Your task to perform on an android device: open app "DoorDash - Food Delivery" (install if not already installed) and go to login screen Image 0: 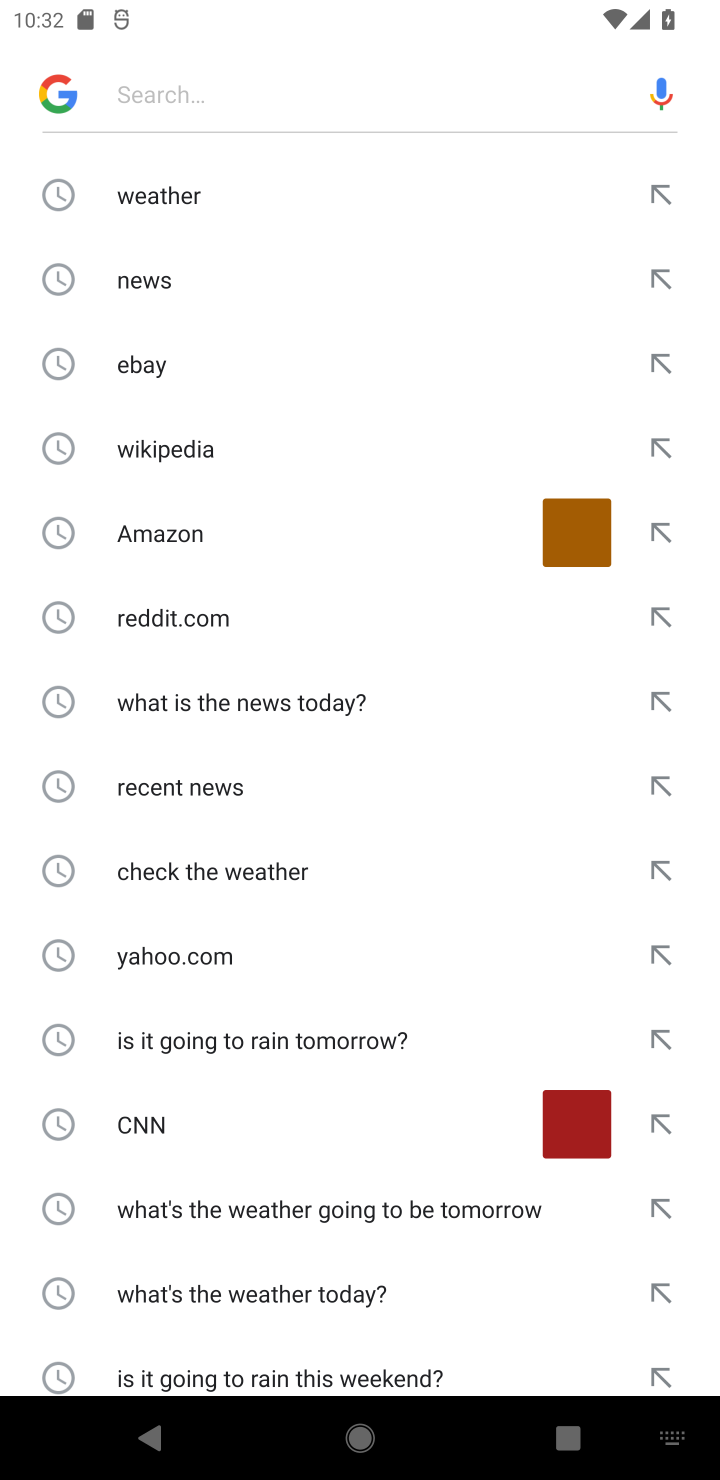
Step 0: press home button
Your task to perform on an android device: open app "DoorDash - Food Delivery" (install if not already installed) and go to login screen Image 1: 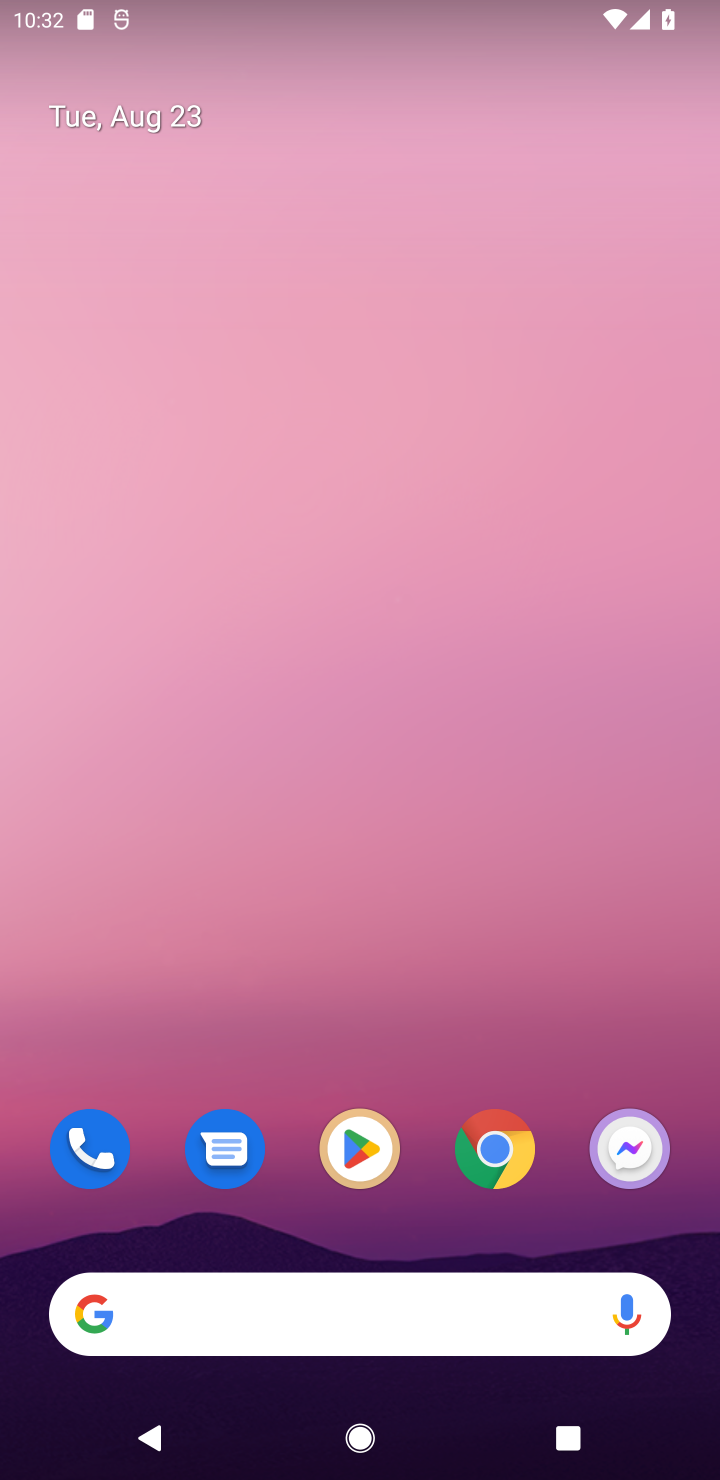
Step 1: click (361, 1140)
Your task to perform on an android device: open app "DoorDash - Food Delivery" (install if not already installed) and go to login screen Image 2: 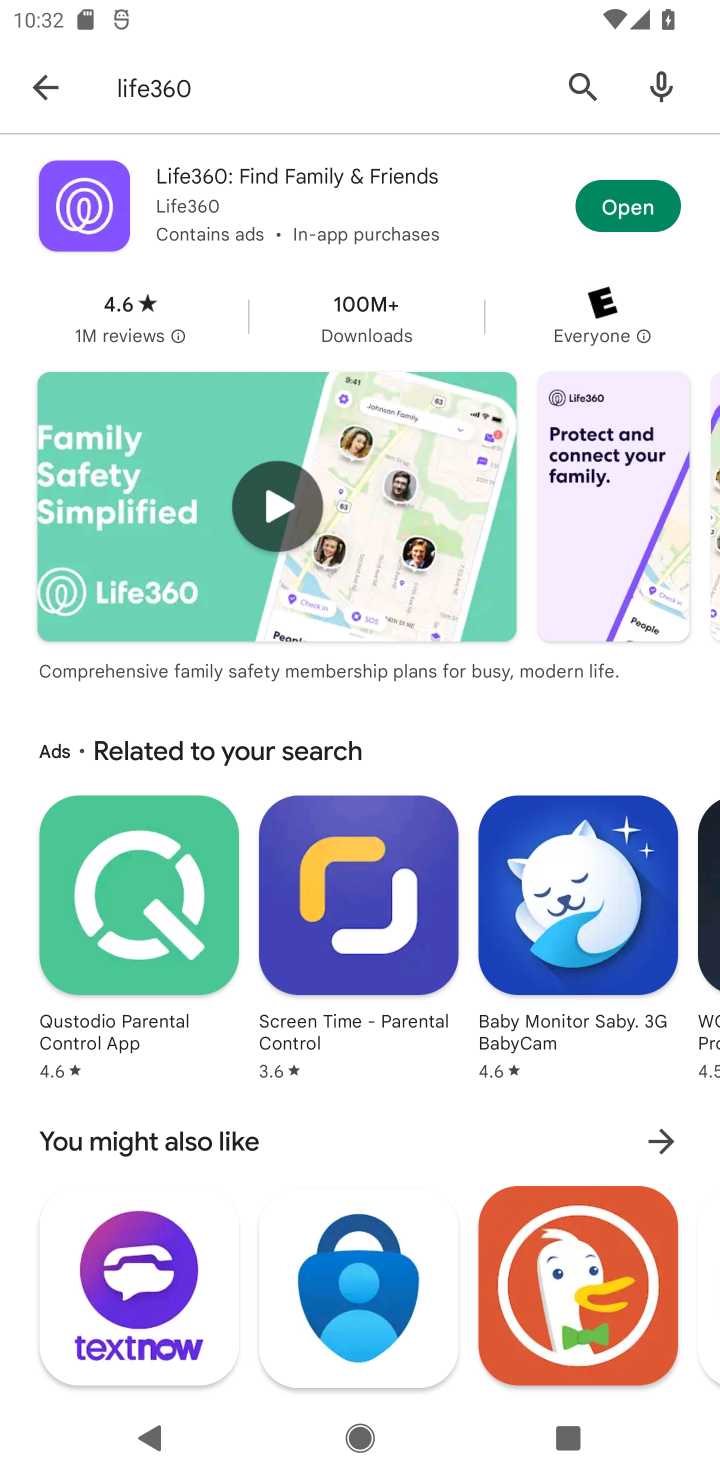
Step 2: click (583, 82)
Your task to perform on an android device: open app "DoorDash - Food Delivery" (install if not already installed) and go to login screen Image 3: 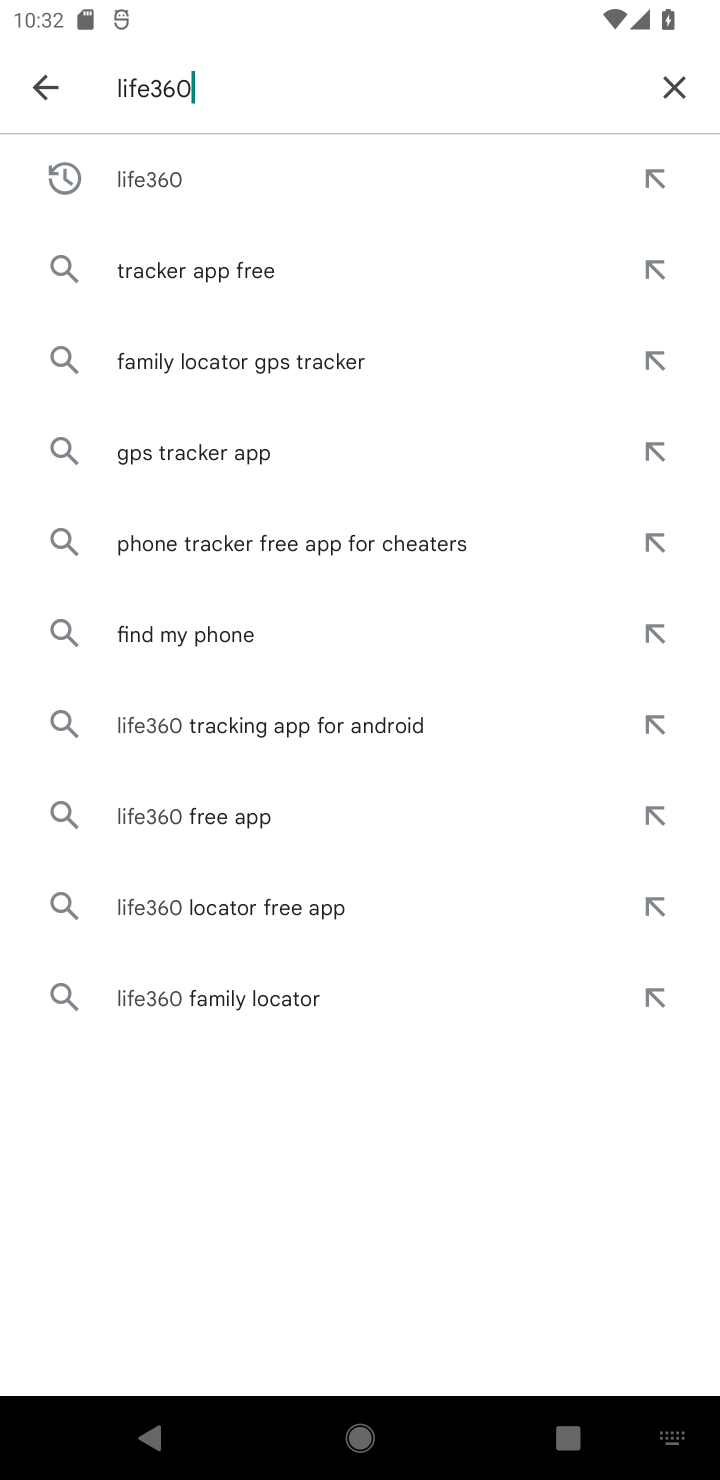
Step 3: click (677, 91)
Your task to perform on an android device: open app "DoorDash - Food Delivery" (install if not already installed) and go to login screen Image 4: 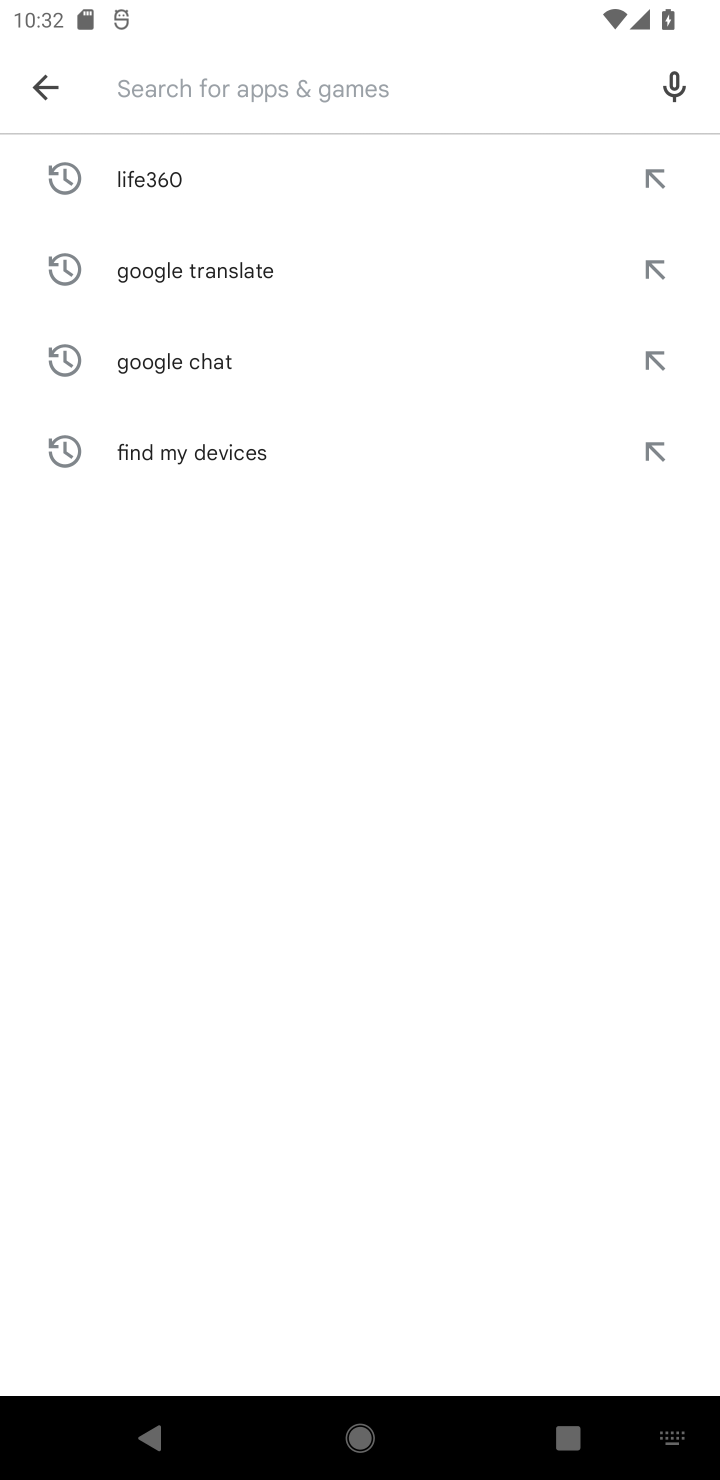
Step 4: type "door dash"
Your task to perform on an android device: open app "DoorDash - Food Delivery" (install if not already installed) and go to login screen Image 5: 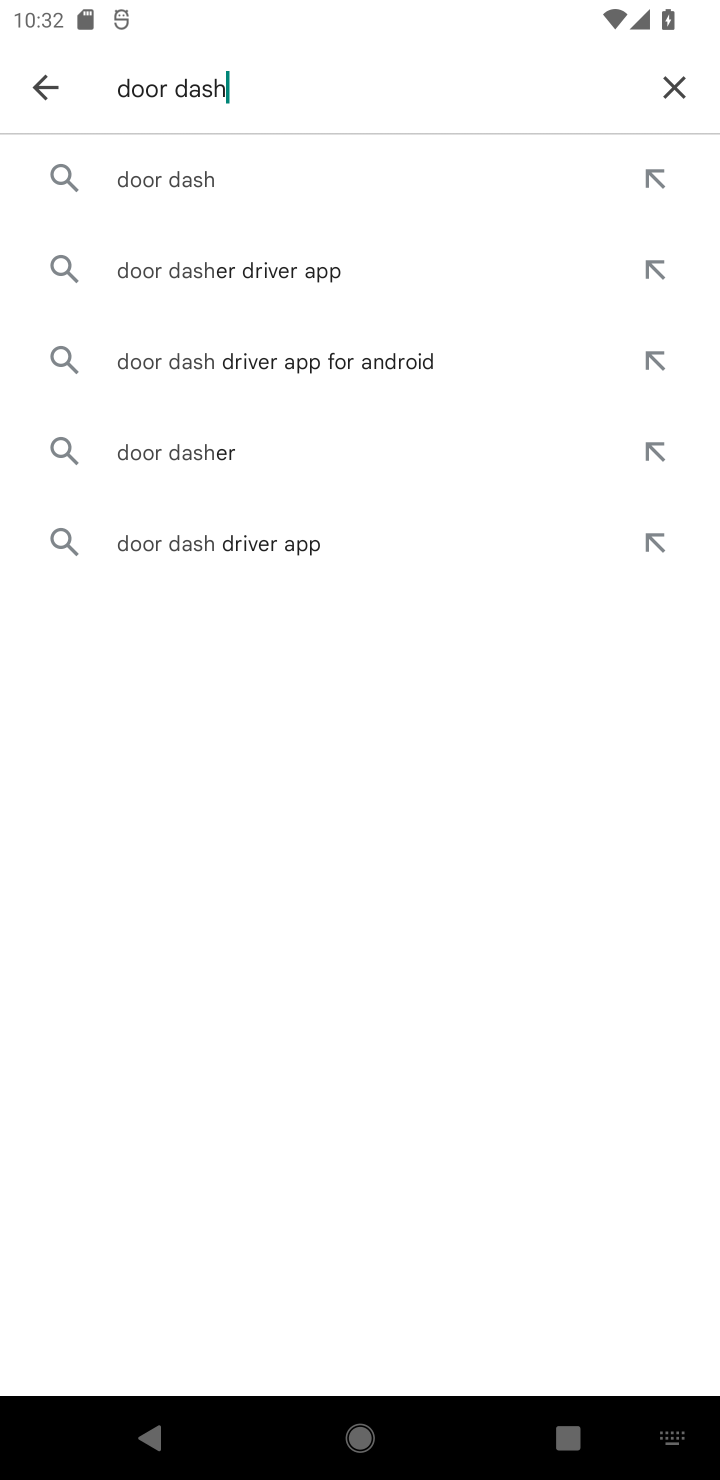
Step 5: click (312, 187)
Your task to perform on an android device: open app "DoorDash - Food Delivery" (install if not already installed) and go to login screen Image 6: 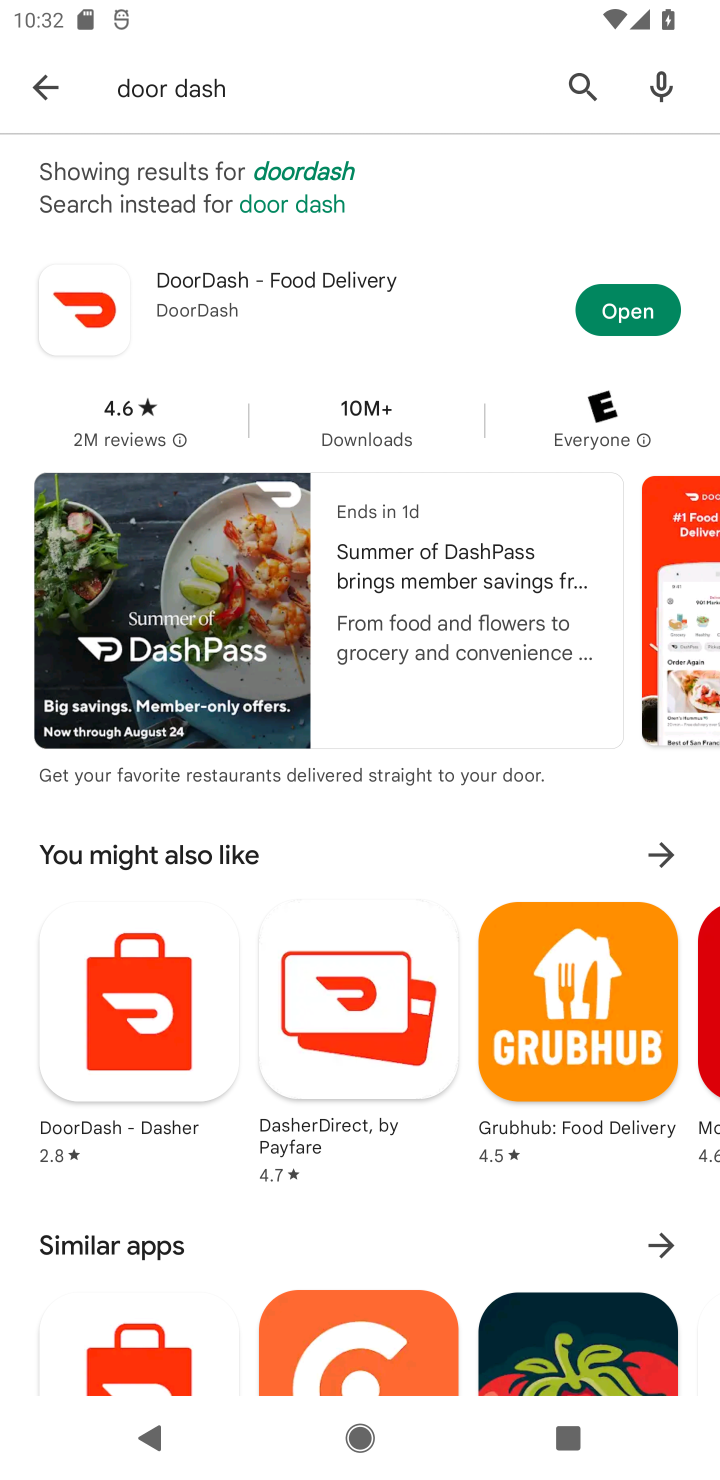
Step 6: click (612, 295)
Your task to perform on an android device: open app "DoorDash - Food Delivery" (install if not already installed) and go to login screen Image 7: 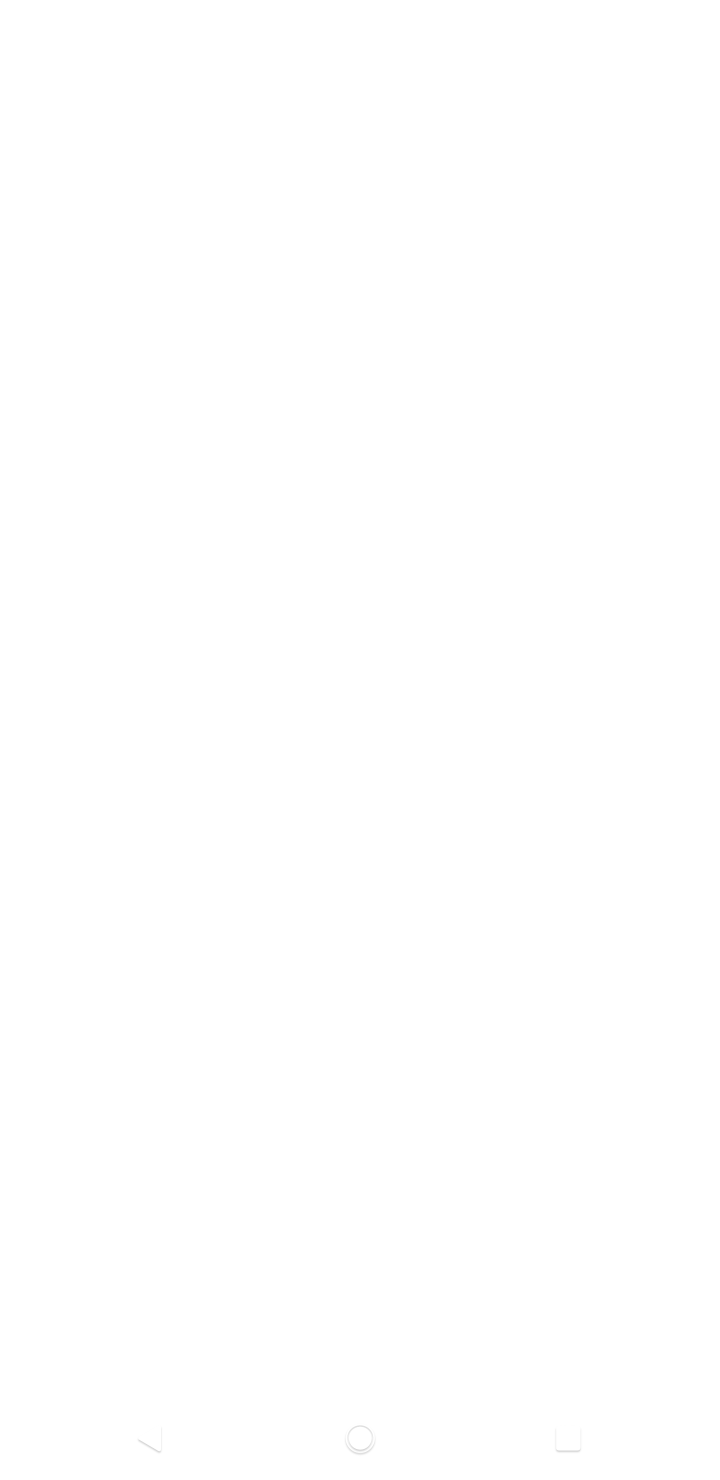
Step 7: task complete